Your task to perform on an android device: Open Reddit.com Image 0: 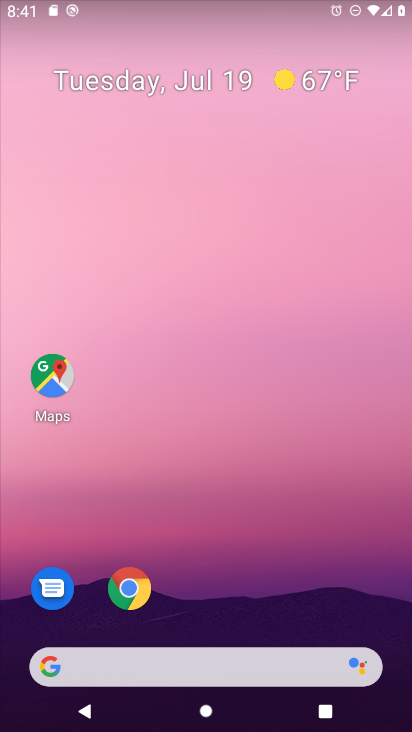
Step 0: drag from (345, 587) to (361, 85)
Your task to perform on an android device: Open Reddit.com Image 1: 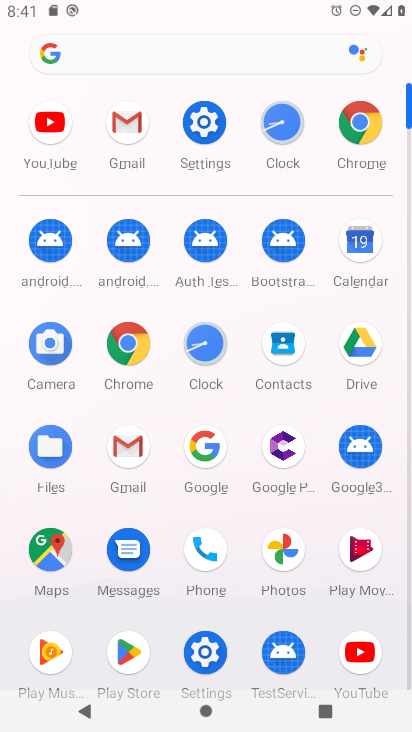
Step 1: click (126, 351)
Your task to perform on an android device: Open Reddit.com Image 2: 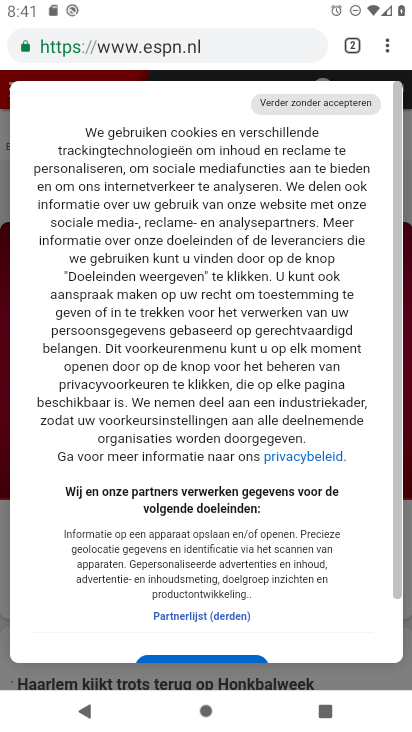
Step 2: click (191, 42)
Your task to perform on an android device: Open Reddit.com Image 3: 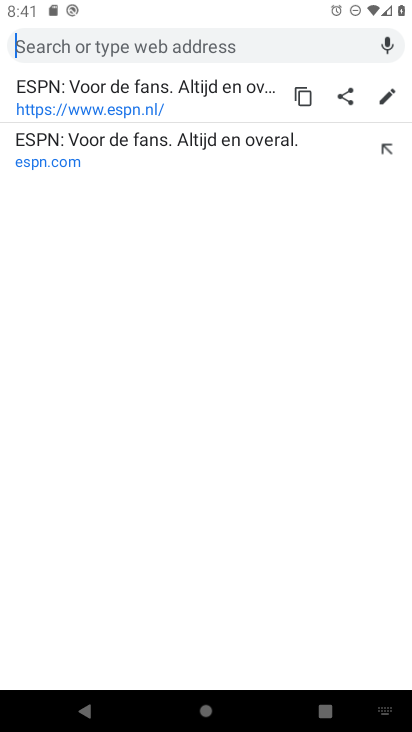
Step 3: type "reddit.com"
Your task to perform on an android device: Open Reddit.com Image 4: 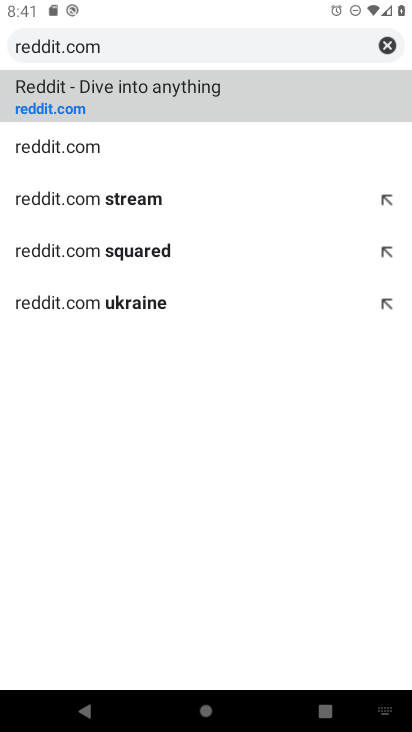
Step 4: click (187, 100)
Your task to perform on an android device: Open Reddit.com Image 5: 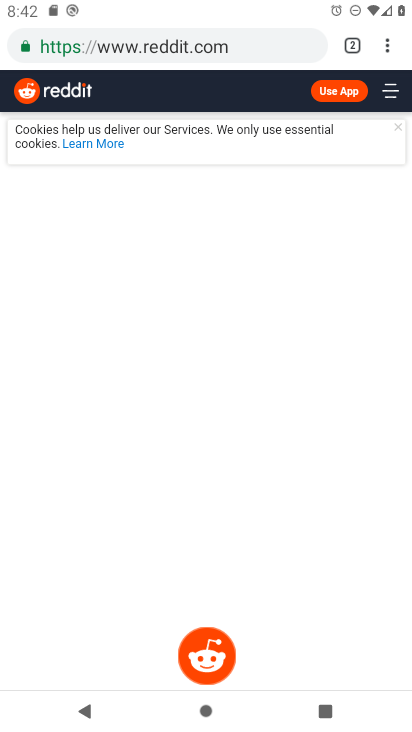
Step 5: task complete